Your task to perform on an android device: Is it going to rain today? Image 0: 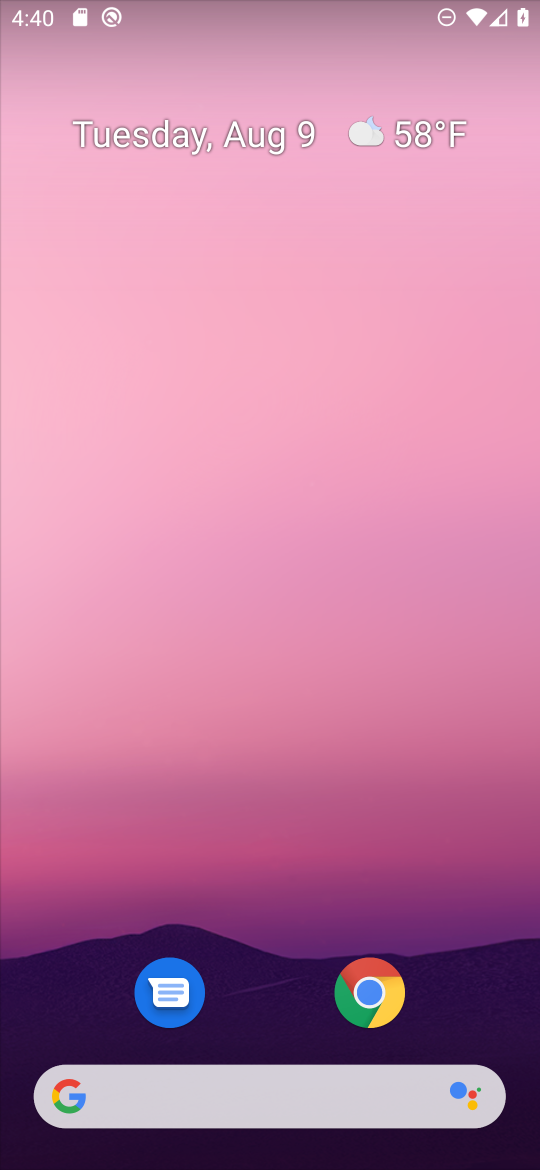
Step 0: drag from (235, 1105) to (162, 217)
Your task to perform on an android device: Is it going to rain today? Image 1: 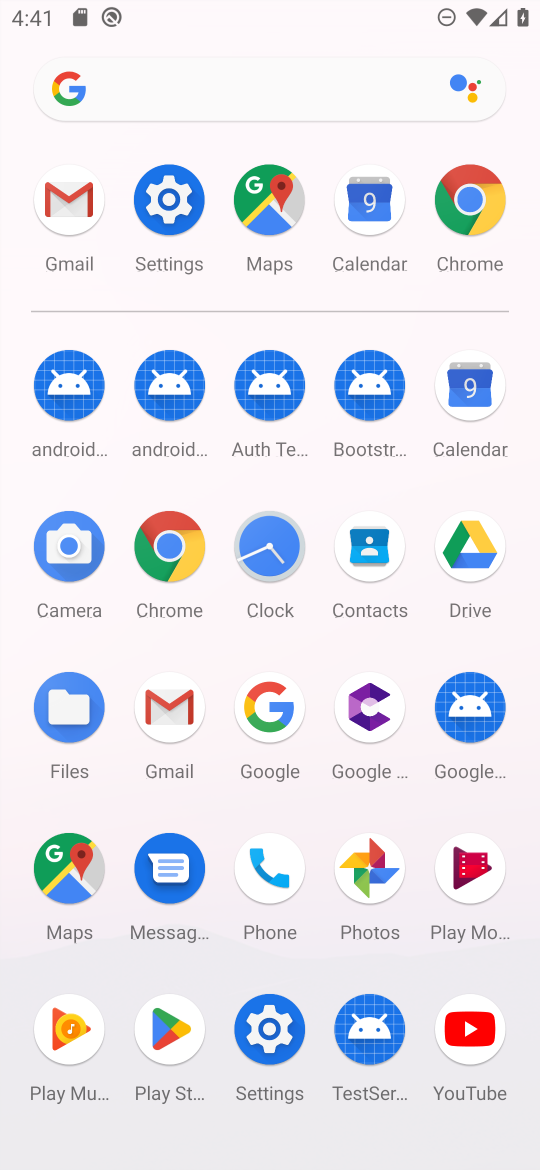
Step 1: click (265, 686)
Your task to perform on an android device: Is it going to rain today? Image 2: 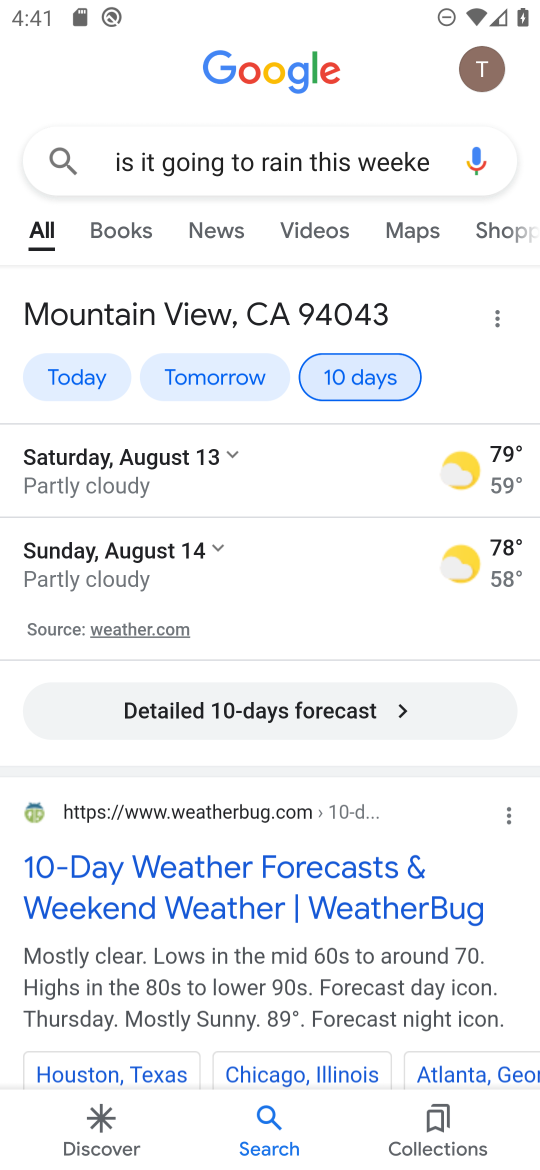
Step 2: click (378, 170)
Your task to perform on an android device: Is it going to rain today? Image 3: 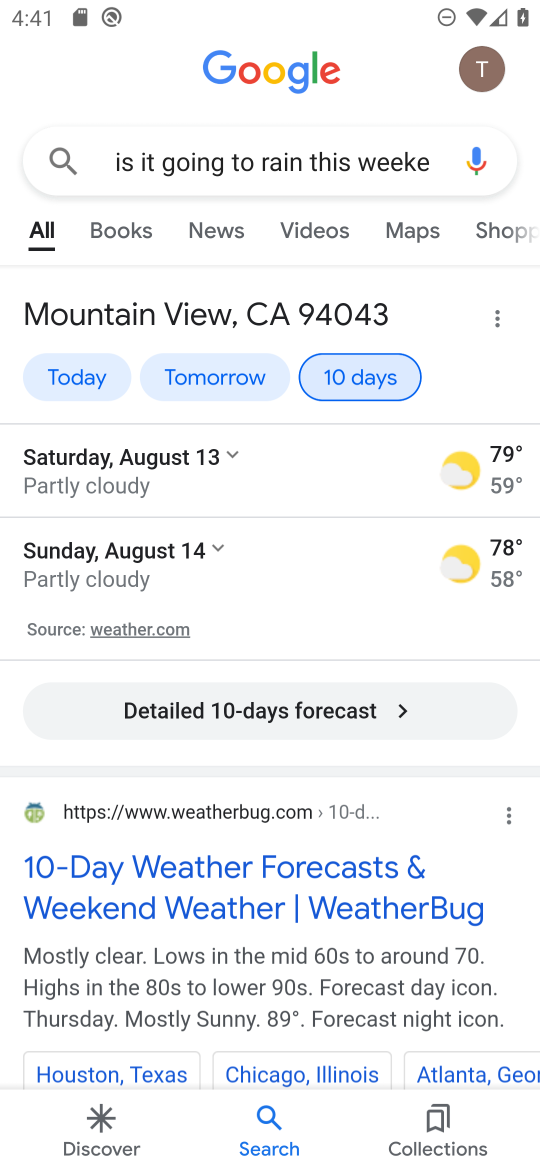
Step 3: click (378, 170)
Your task to perform on an android device: Is it going to rain today? Image 4: 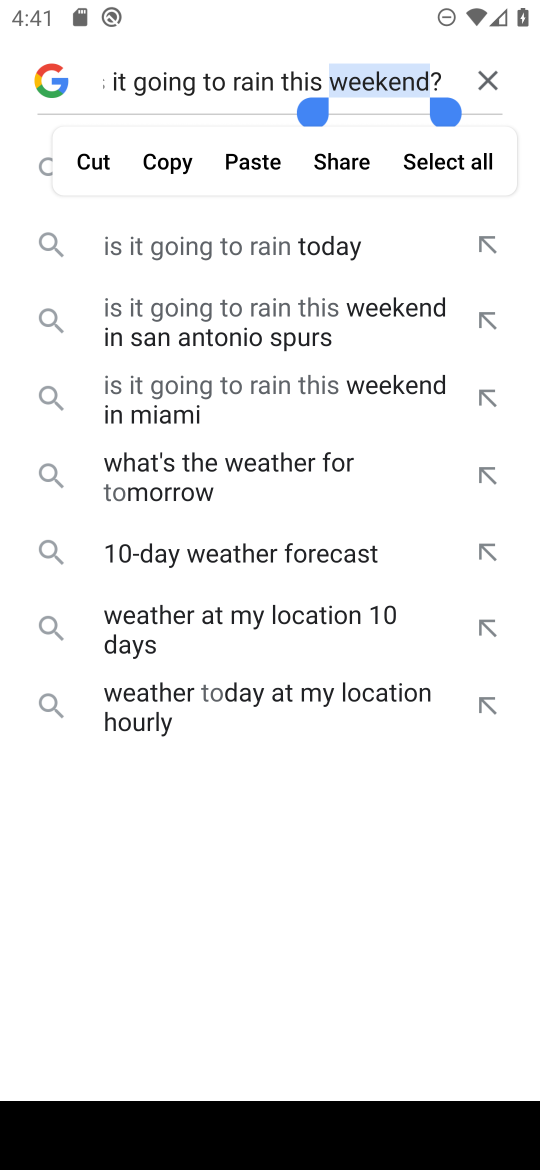
Step 4: click (312, 222)
Your task to perform on an android device: Is it going to rain today? Image 5: 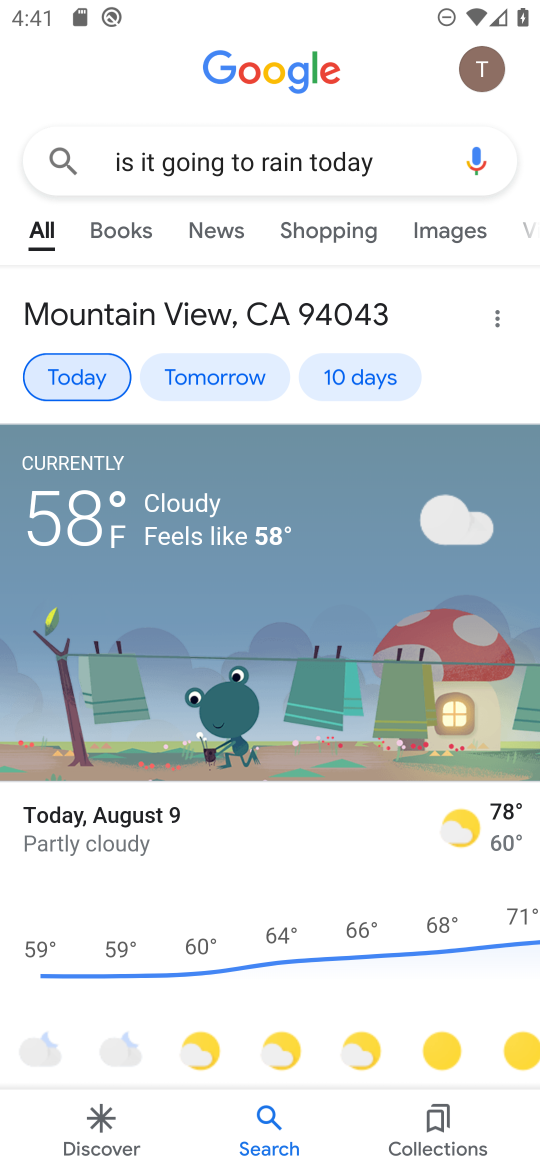
Step 5: task complete